Your task to perform on an android device: add a label to a message in the gmail app Image 0: 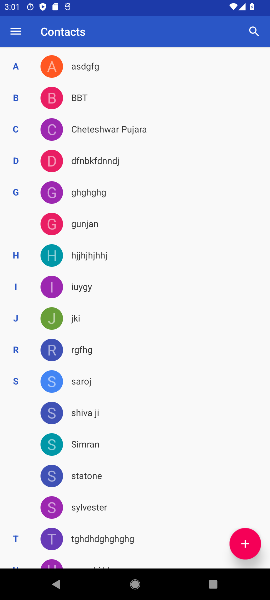
Step 0: press home button
Your task to perform on an android device: add a label to a message in the gmail app Image 1: 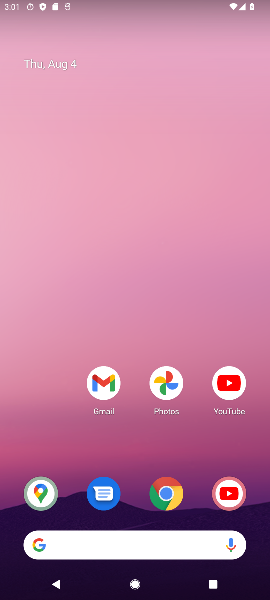
Step 1: click (112, 358)
Your task to perform on an android device: add a label to a message in the gmail app Image 2: 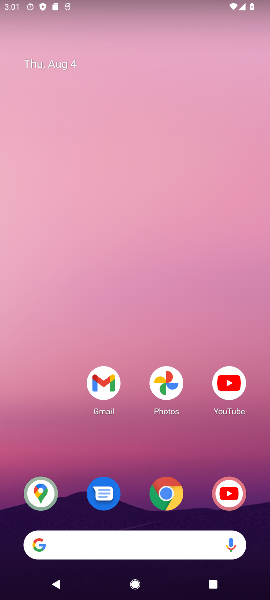
Step 2: click (81, 400)
Your task to perform on an android device: add a label to a message in the gmail app Image 3: 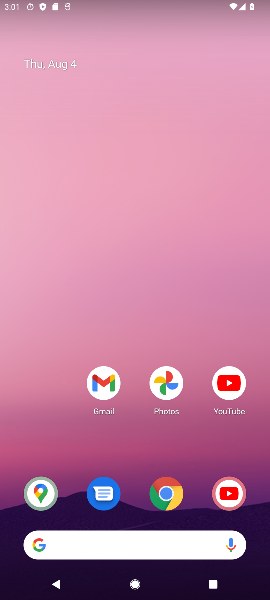
Step 3: click (96, 383)
Your task to perform on an android device: add a label to a message in the gmail app Image 4: 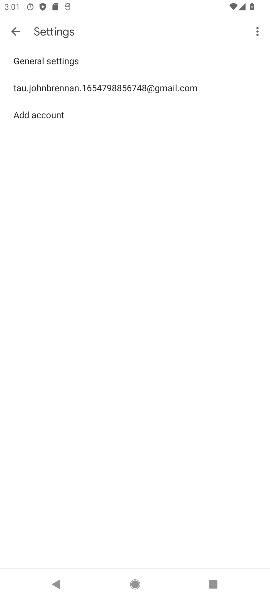
Step 4: click (14, 30)
Your task to perform on an android device: add a label to a message in the gmail app Image 5: 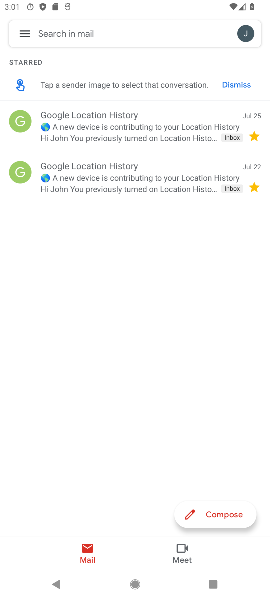
Step 5: task complete